Your task to perform on an android device: find photos in the google photos app Image 0: 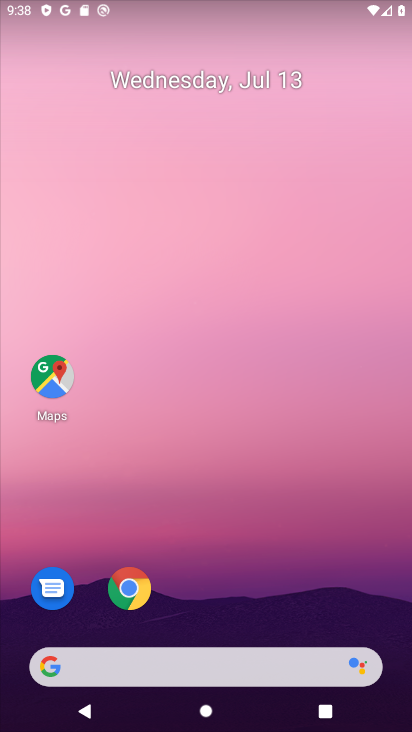
Step 0: drag from (247, 529) to (247, 170)
Your task to perform on an android device: find photos in the google photos app Image 1: 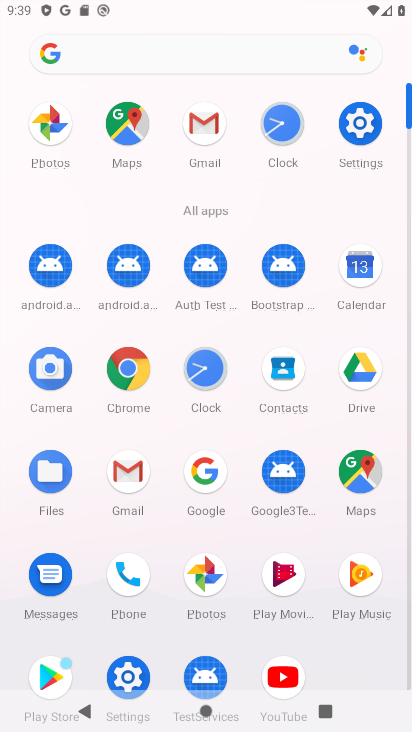
Step 1: click (202, 574)
Your task to perform on an android device: find photos in the google photos app Image 2: 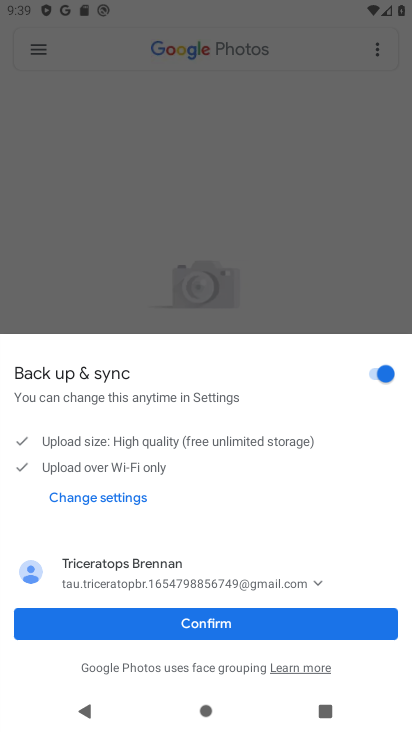
Step 2: click (183, 486)
Your task to perform on an android device: find photos in the google photos app Image 3: 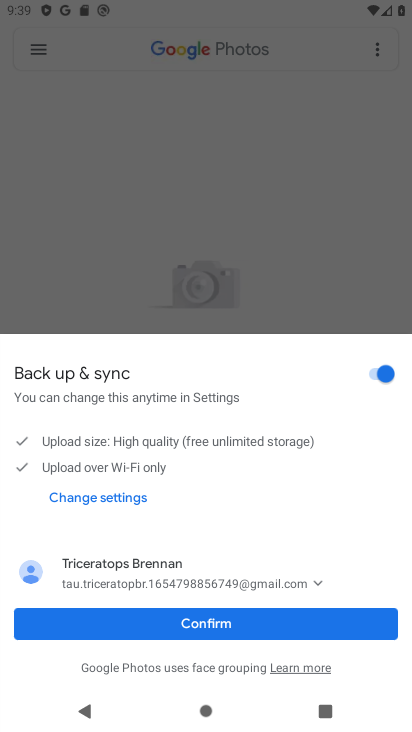
Step 3: click (206, 621)
Your task to perform on an android device: find photos in the google photos app Image 4: 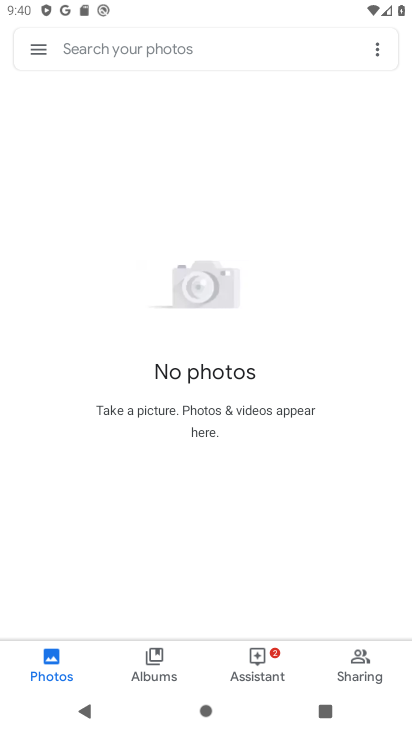
Step 4: task complete